Your task to perform on an android device: toggle translation in the chrome app Image 0: 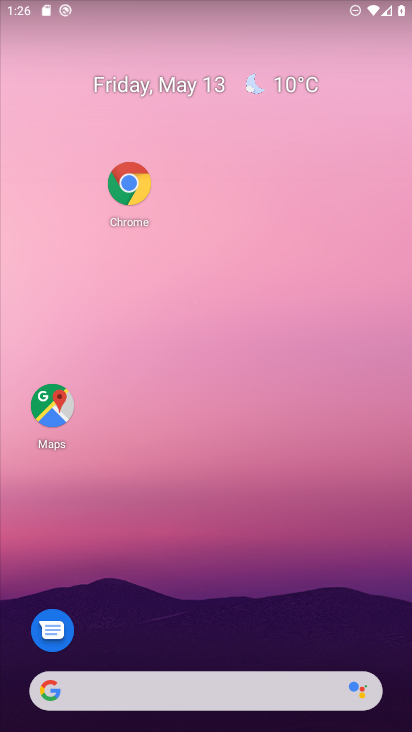
Step 0: click (129, 191)
Your task to perform on an android device: toggle translation in the chrome app Image 1: 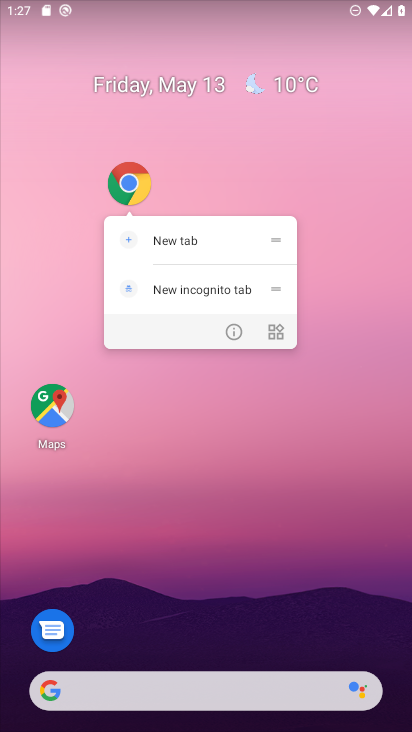
Step 1: click (134, 187)
Your task to perform on an android device: toggle translation in the chrome app Image 2: 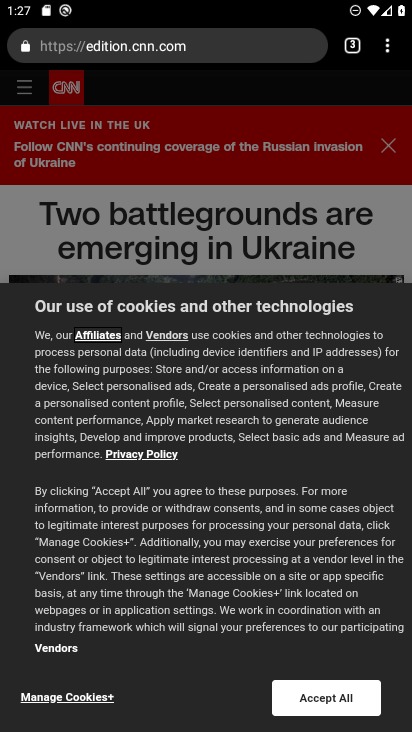
Step 2: click (382, 50)
Your task to perform on an android device: toggle translation in the chrome app Image 3: 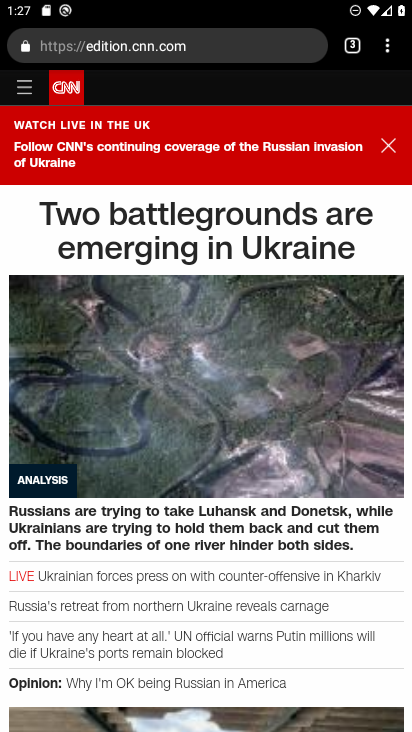
Step 3: drag from (395, 53) to (256, 551)
Your task to perform on an android device: toggle translation in the chrome app Image 4: 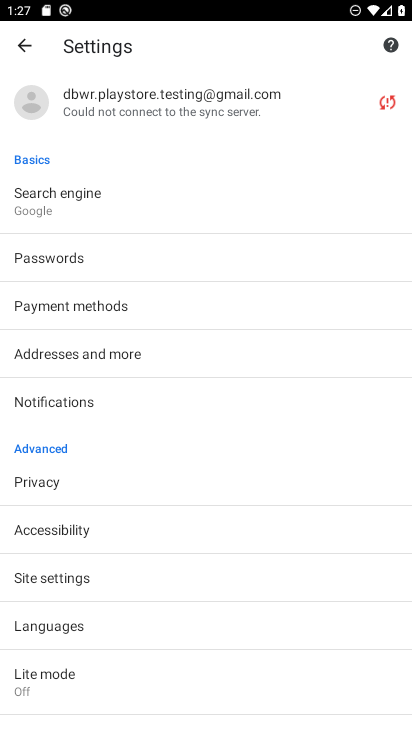
Step 4: click (42, 635)
Your task to perform on an android device: toggle translation in the chrome app Image 5: 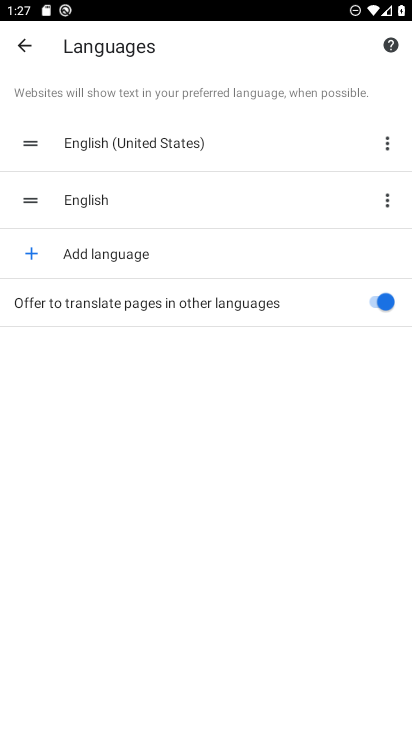
Step 5: click (387, 297)
Your task to perform on an android device: toggle translation in the chrome app Image 6: 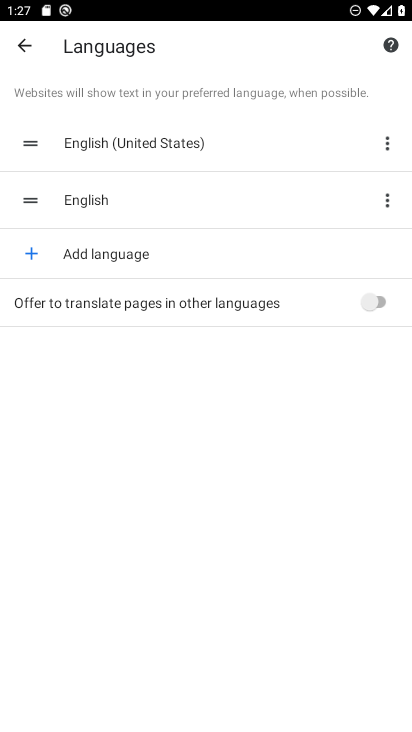
Step 6: task complete